Your task to perform on an android device: Show me the alarms in the clock app Image 0: 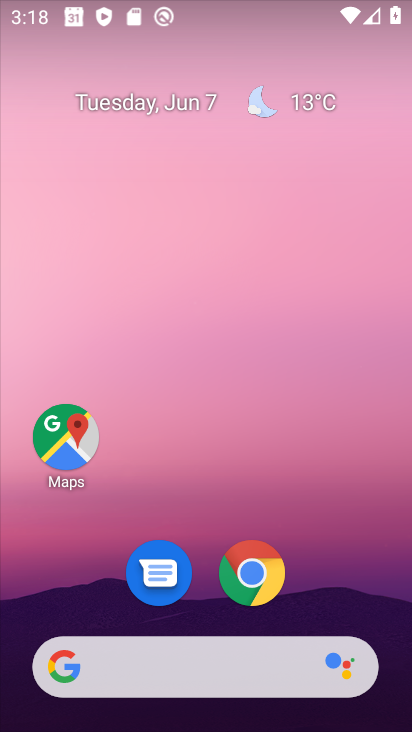
Step 0: drag from (390, 616) to (261, 233)
Your task to perform on an android device: Show me the alarms in the clock app Image 1: 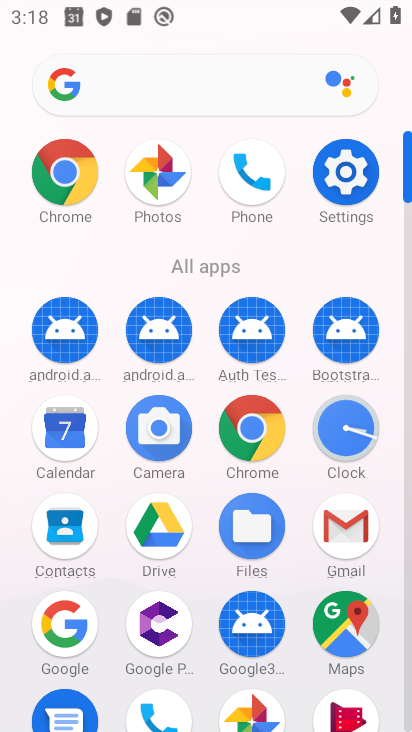
Step 1: click (352, 441)
Your task to perform on an android device: Show me the alarms in the clock app Image 2: 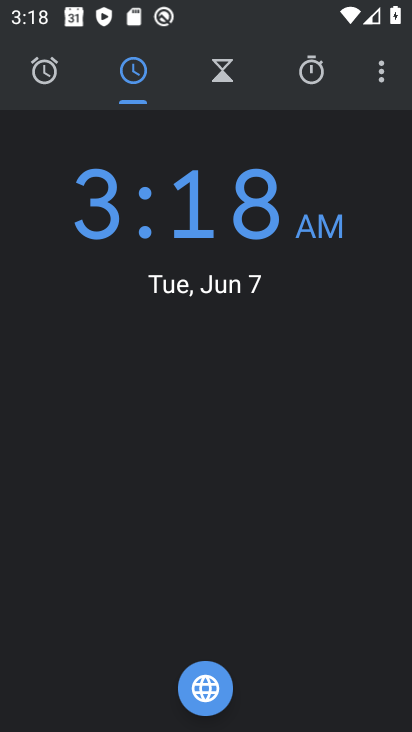
Step 2: click (49, 96)
Your task to perform on an android device: Show me the alarms in the clock app Image 3: 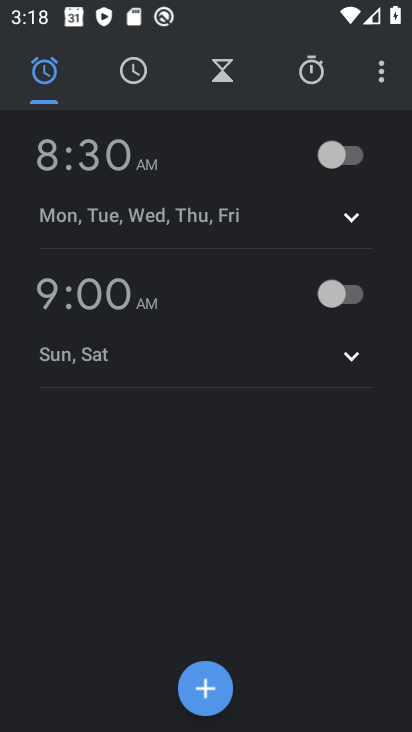
Step 3: task complete